Your task to perform on an android device: Search for Mexican restaurants on Maps Image 0: 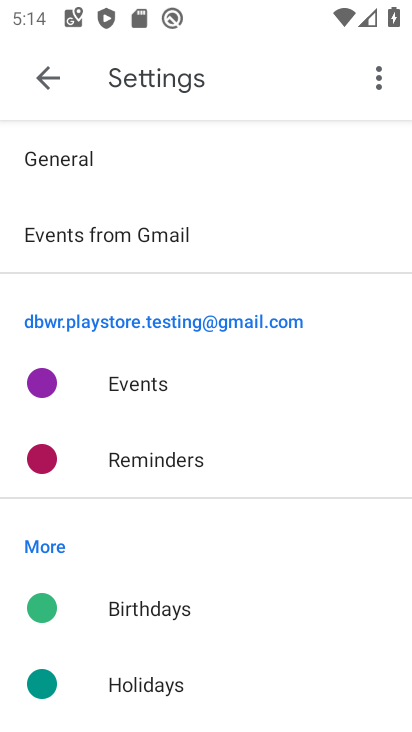
Step 0: press home button
Your task to perform on an android device: Search for Mexican restaurants on Maps Image 1: 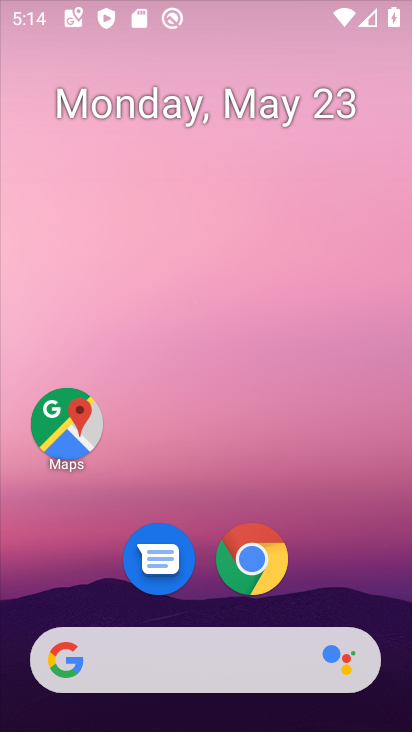
Step 1: drag from (240, 625) to (321, 5)
Your task to perform on an android device: Search for Mexican restaurants on Maps Image 2: 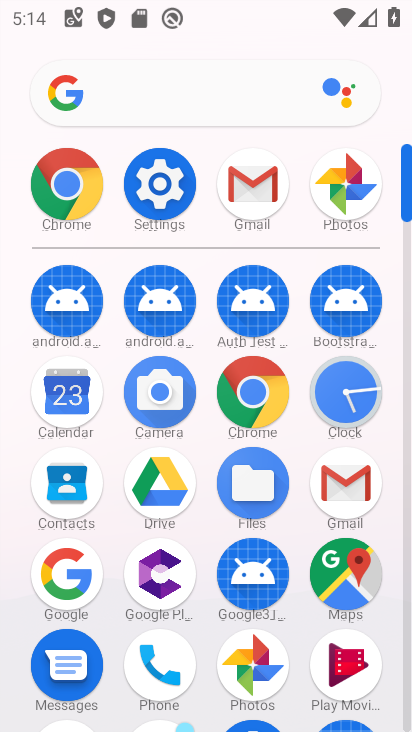
Step 2: click (348, 569)
Your task to perform on an android device: Search for Mexican restaurants on Maps Image 3: 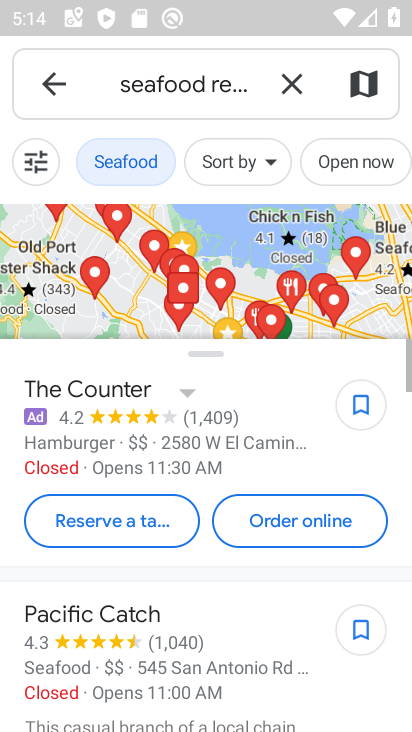
Step 3: press back button
Your task to perform on an android device: Search for Mexican restaurants on Maps Image 4: 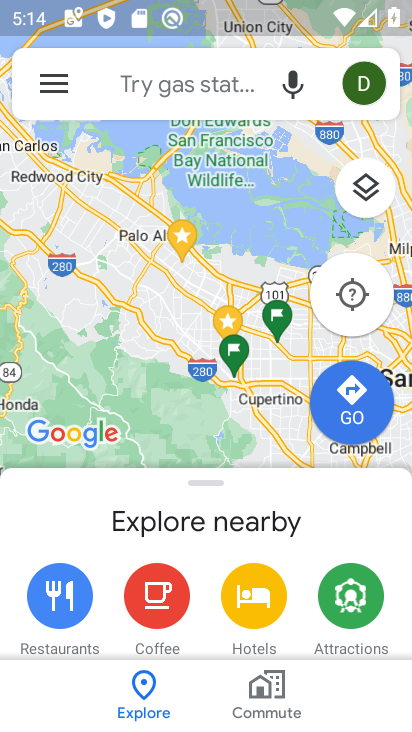
Step 4: click (161, 64)
Your task to perform on an android device: Search for Mexican restaurants on Maps Image 5: 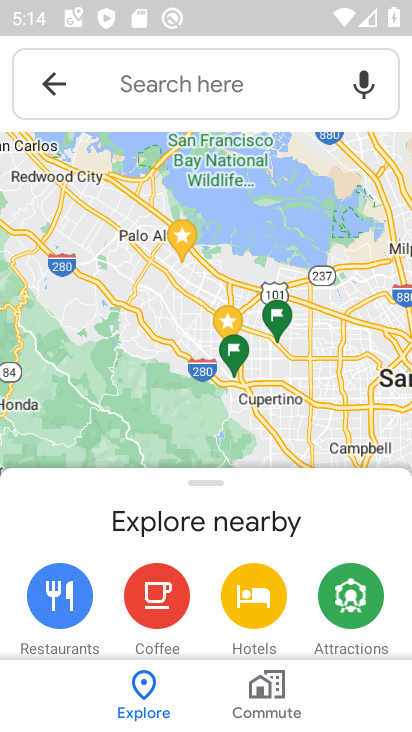
Step 5: click (161, 64)
Your task to perform on an android device: Search for Mexican restaurants on Maps Image 6: 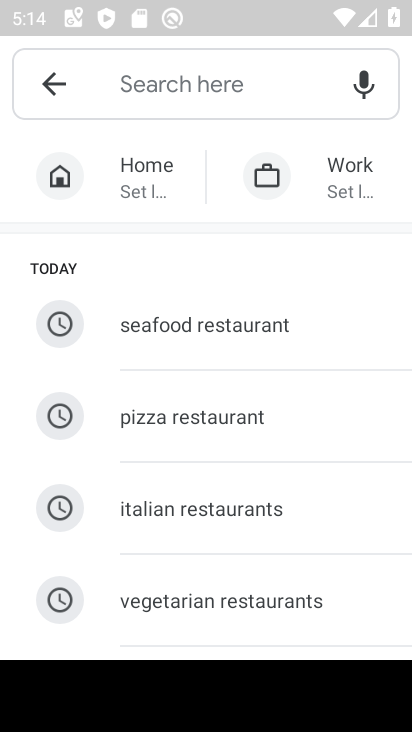
Step 6: type "mexican restaurant"
Your task to perform on an android device: Search for Mexican restaurants on Maps Image 7: 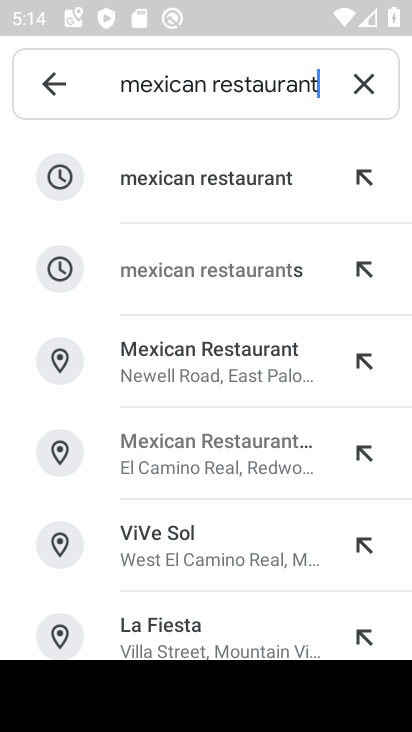
Step 7: click (273, 201)
Your task to perform on an android device: Search for Mexican restaurants on Maps Image 8: 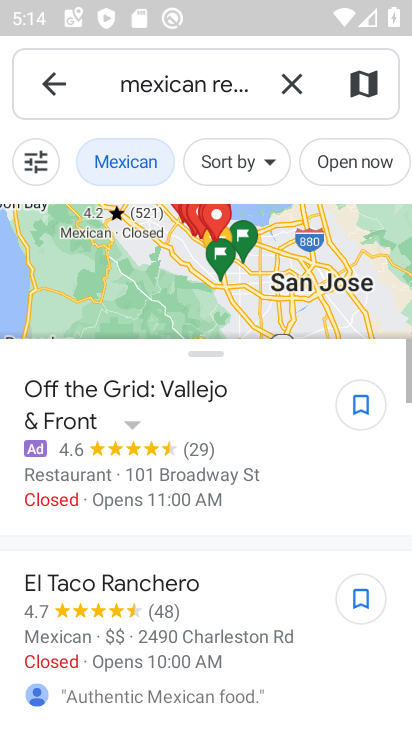
Step 8: task complete